Your task to perform on an android device: What's US dollar exchange rate against the British Pound? Image 0: 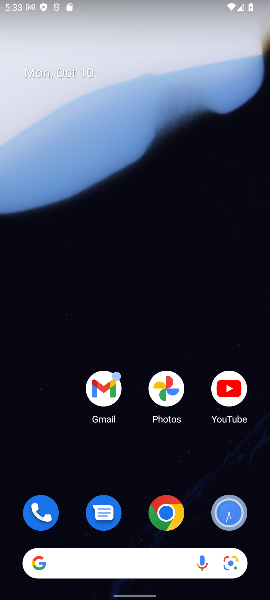
Step 0: click (121, 564)
Your task to perform on an android device: What's US dollar exchange rate against the British Pound? Image 1: 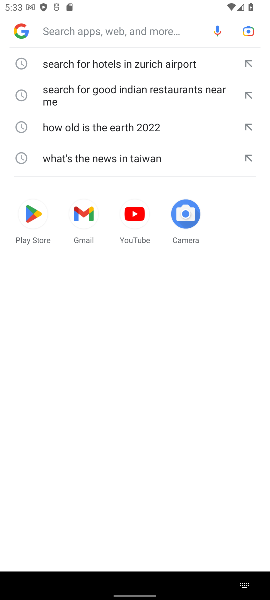
Step 1: type "What's US dollar exchange rate against the British Pound?"
Your task to perform on an android device: What's US dollar exchange rate against the British Pound? Image 2: 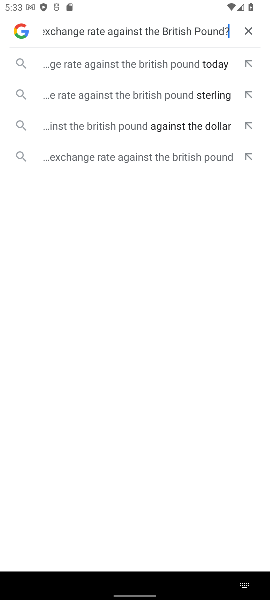
Step 2: click (187, 71)
Your task to perform on an android device: What's US dollar exchange rate against the British Pound? Image 3: 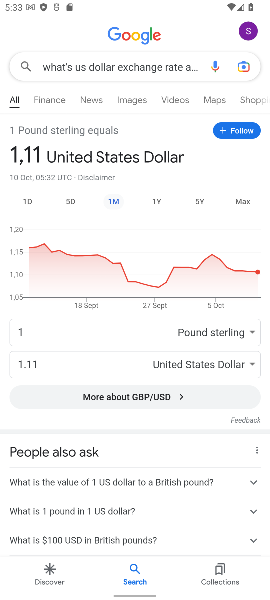
Step 3: task complete